Your task to perform on an android device: turn off notifications in google photos Image 0: 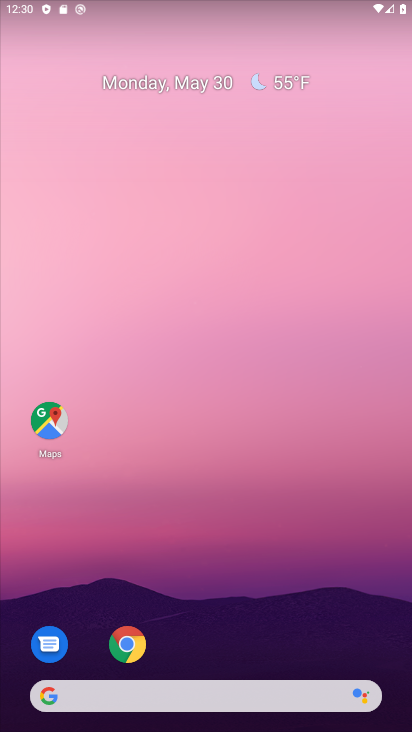
Step 0: drag from (347, 587) to (339, 97)
Your task to perform on an android device: turn off notifications in google photos Image 1: 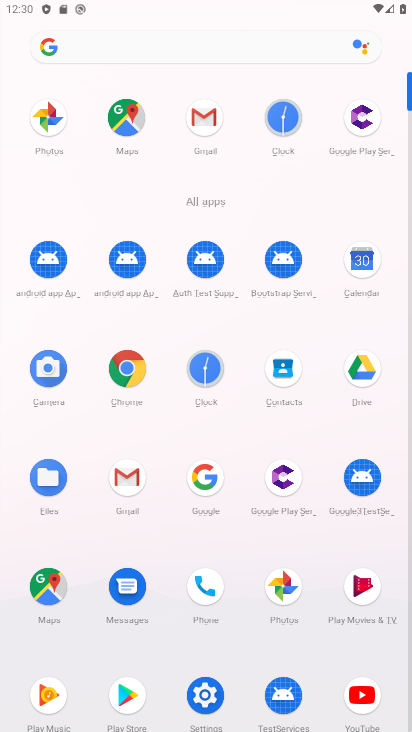
Step 1: click (65, 126)
Your task to perform on an android device: turn off notifications in google photos Image 2: 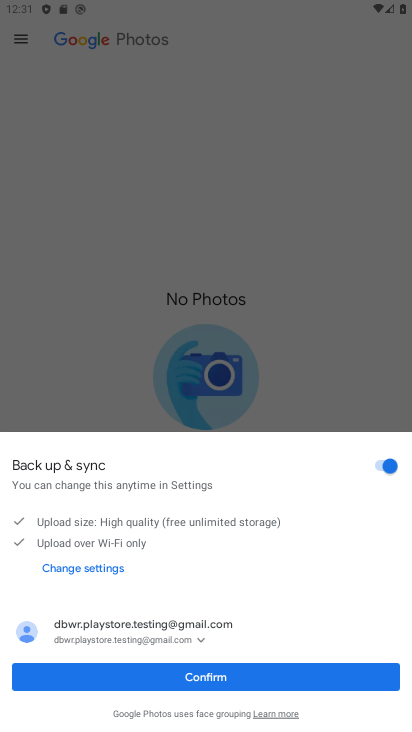
Step 2: click (248, 679)
Your task to perform on an android device: turn off notifications in google photos Image 3: 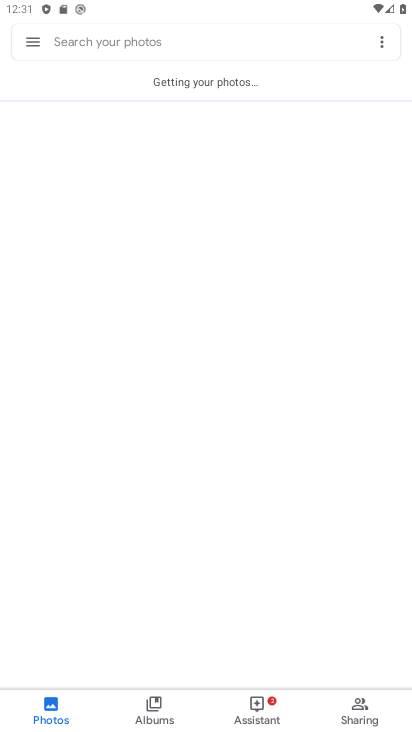
Step 3: task complete